Your task to perform on an android device: Open the Play Movies app and select the watchlist tab. Image 0: 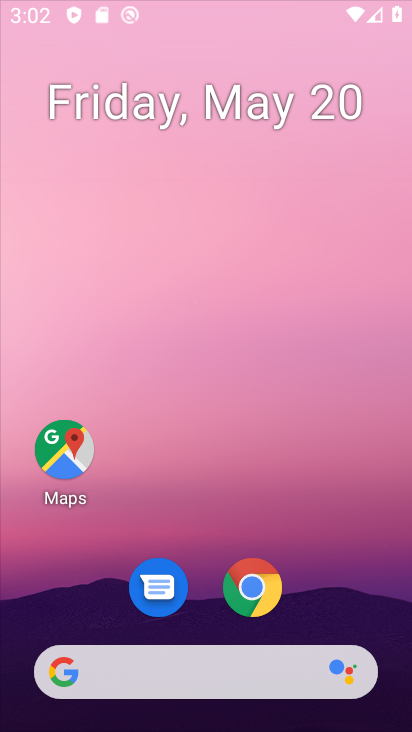
Step 0: press home button
Your task to perform on an android device: Open the Play Movies app and select the watchlist tab. Image 1: 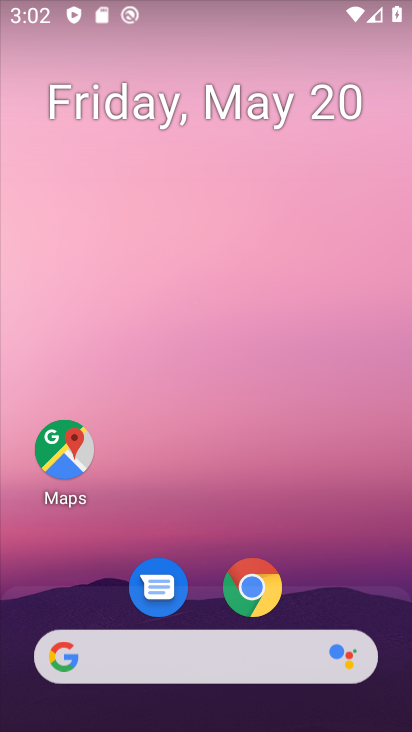
Step 1: drag from (352, 588) to (396, 49)
Your task to perform on an android device: Open the Play Movies app and select the watchlist tab. Image 2: 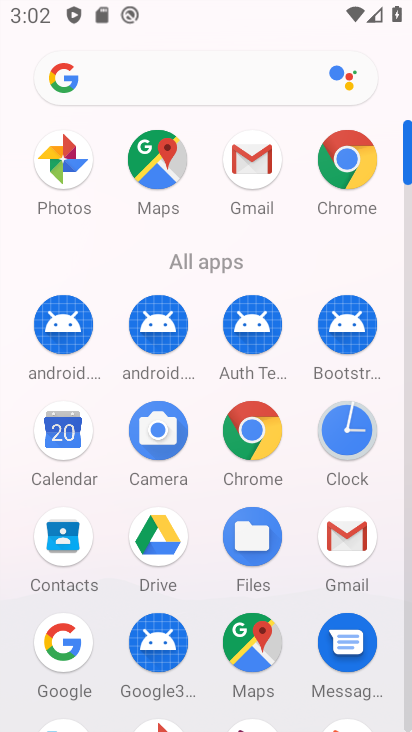
Step 2: click (409, 720)
Your task to perform on an android device: Open the Play Movies app and select the watchlist tab. Image 3: 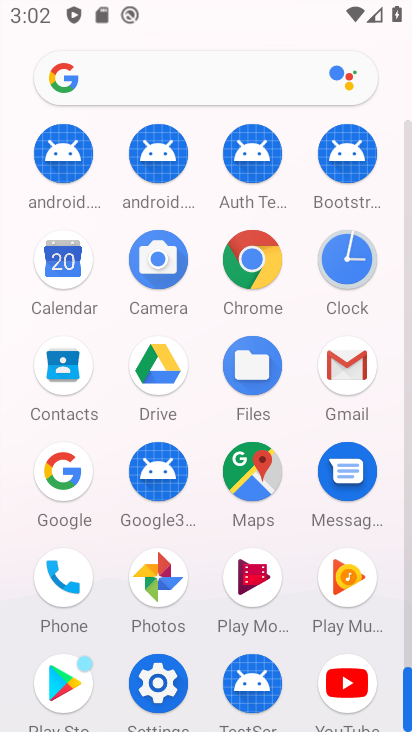
Step 3: click (238, 552)
Your task to perform on an android device: Open the Play Movies app and select the watchlist tab. Image 4: 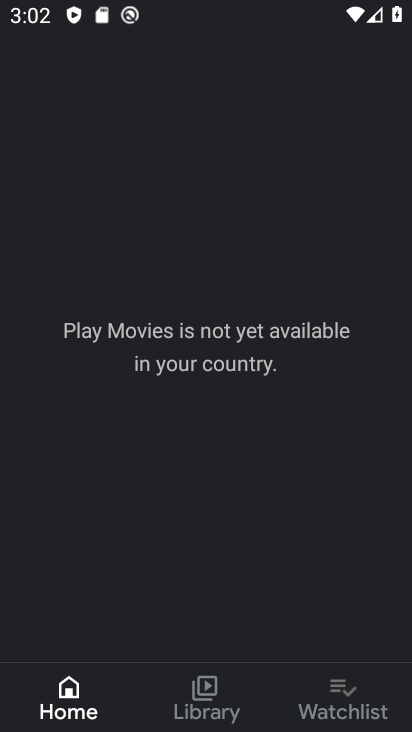
Step 4: click (371, 679)
Your task to perform on an android device: Open the Play Movies app and select the watchlist tab. Image 5: 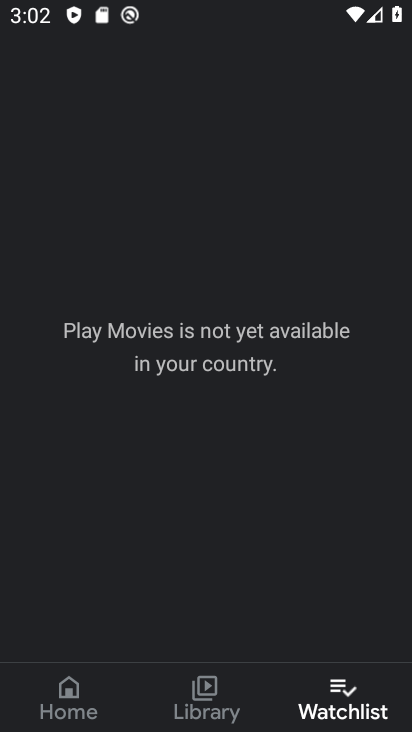
Step 5: task complete